Your task to perform on an android device: turn off notifications in google photos Image 0: 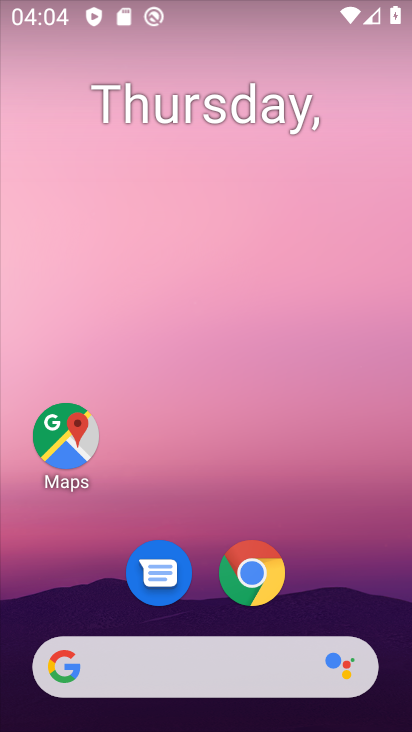
Step 0: drag from (391, 653) to (312, 170)
Your task to perform on an android device: turn off notifications in google photos Image 1: 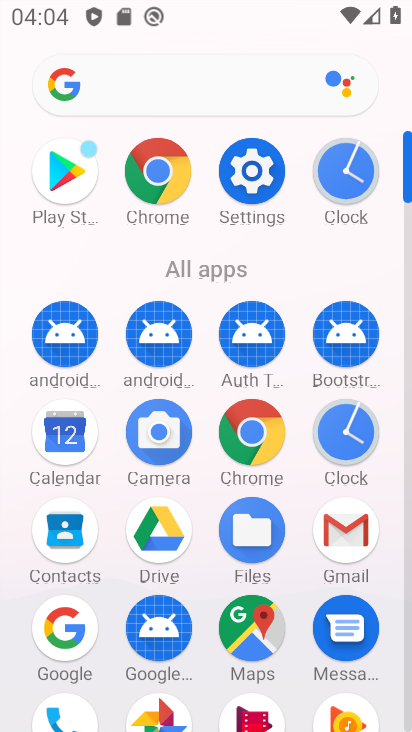
Step 1: click (406, 713)
Your task to perform on an android device: turn off notifications in google photos Image 2: 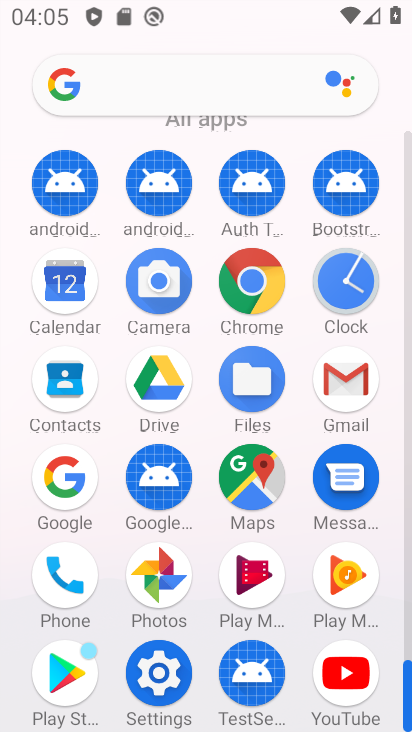
Step 2: click (160, 579)
Your task to perform on an android device: turn off notifications in google photos Image 3: 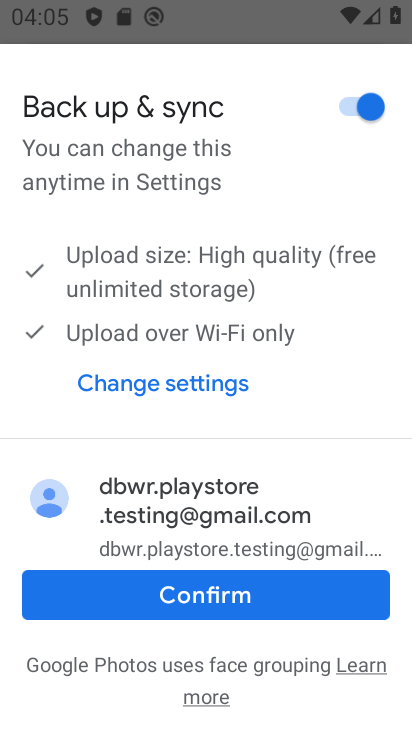
Step 3: click (179, 600)
Your task to perform on an android device: turn off notifications in google photos Image 4: 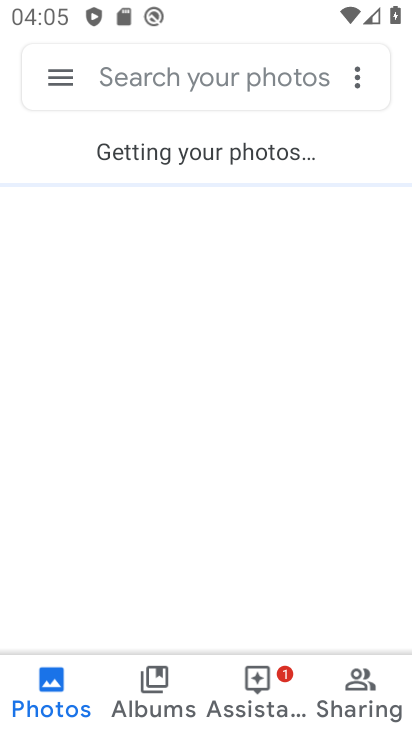
Step 4: click (54, 76)
Your task to perform on an android device: turn off notifications in google photos Image 5: 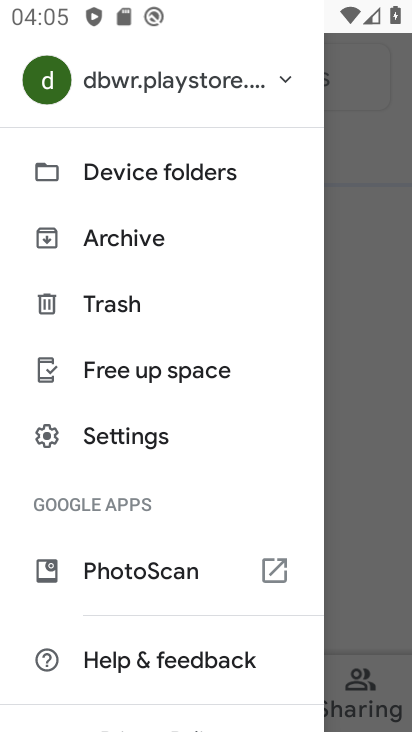
Step 5: click (131, 434)
Your task to perform on an android device: turn off notifications in google photos Image 6: 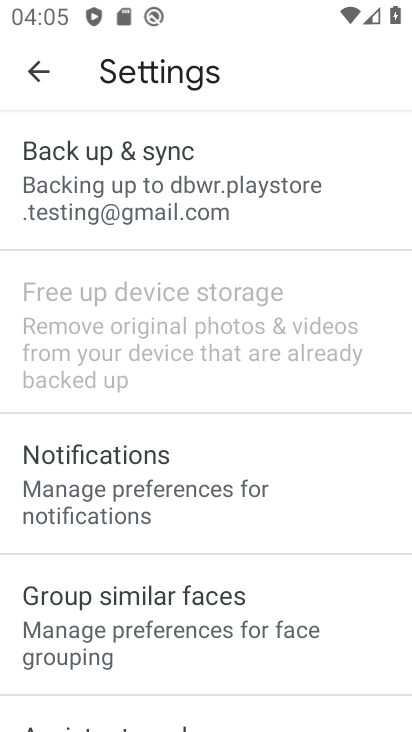
Step 6: click (114, 473)
Your task to perform on an android device: turn off notifications in google photos Image 7: 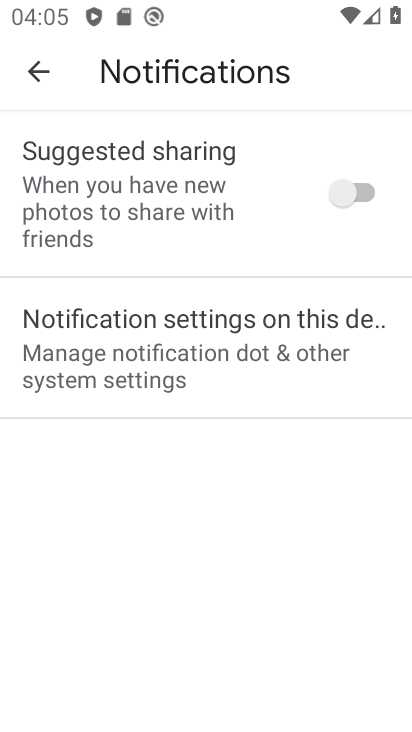
Step 7: click (133, 355)
Your task to perform on an android device: turn off notifications in google photos Image 8: 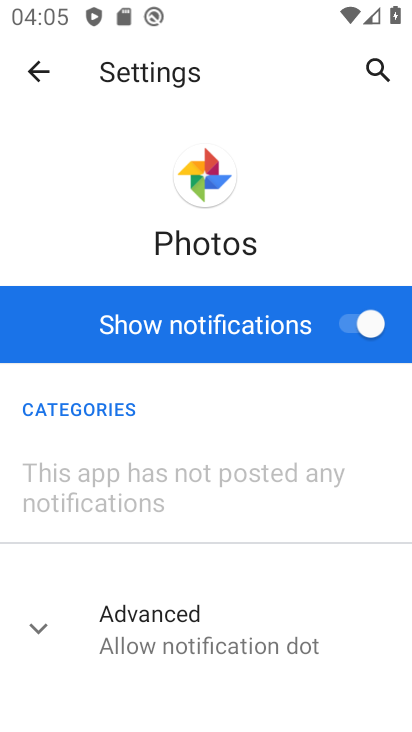
Step 8: click (354, 321)
Your task to perform on an android device: turn off notifications in google photos Image 9: 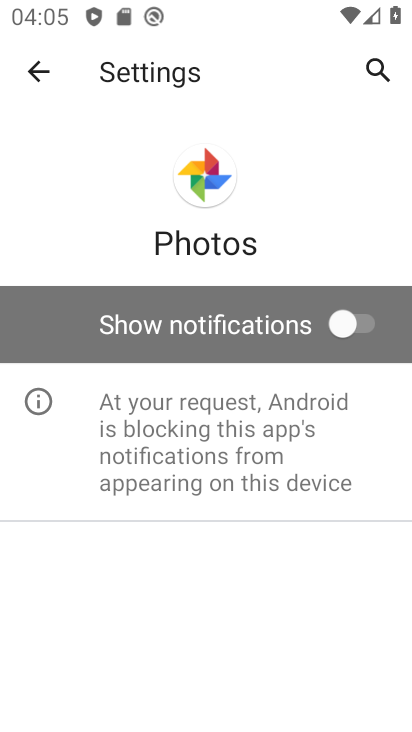
Step 9: task complete